Your task to perform on an android device: Check the weather Image 0: 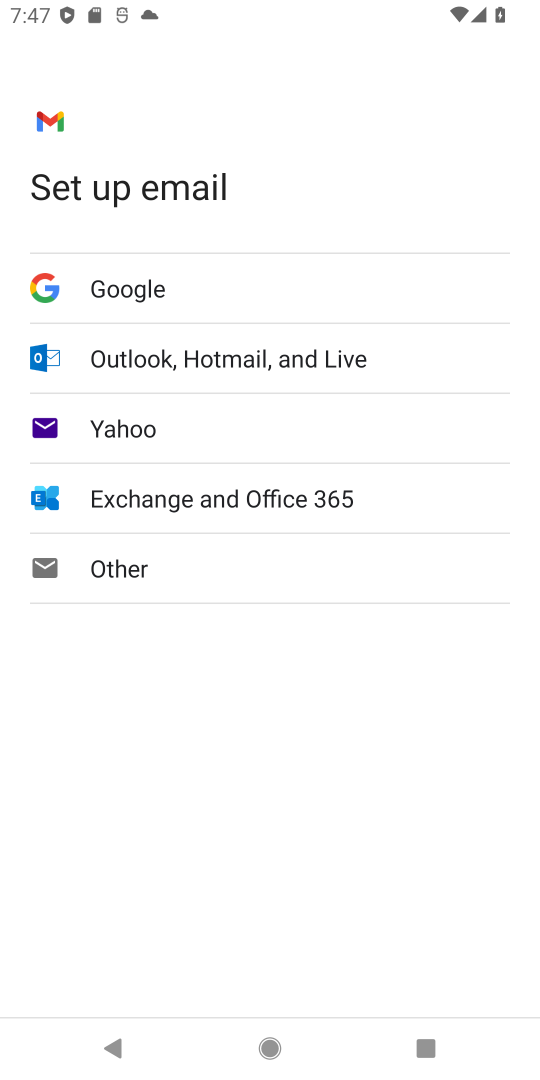
Step 0: press home button
Your task to perform on an android device: Check the weather Image 1: 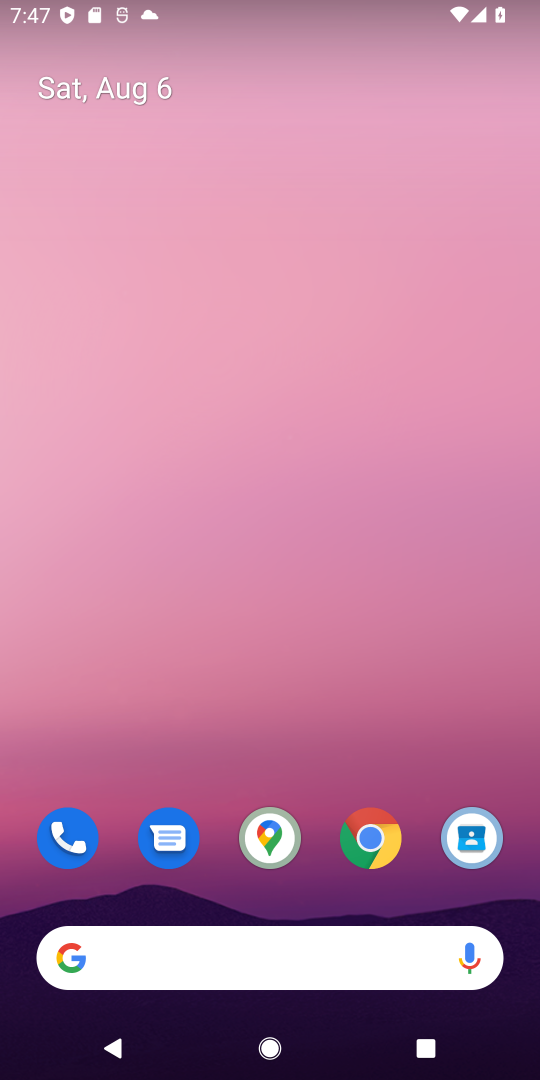
Step 1: click (284, 949)
Your task to perform on an android device: Check the weather Image 2: 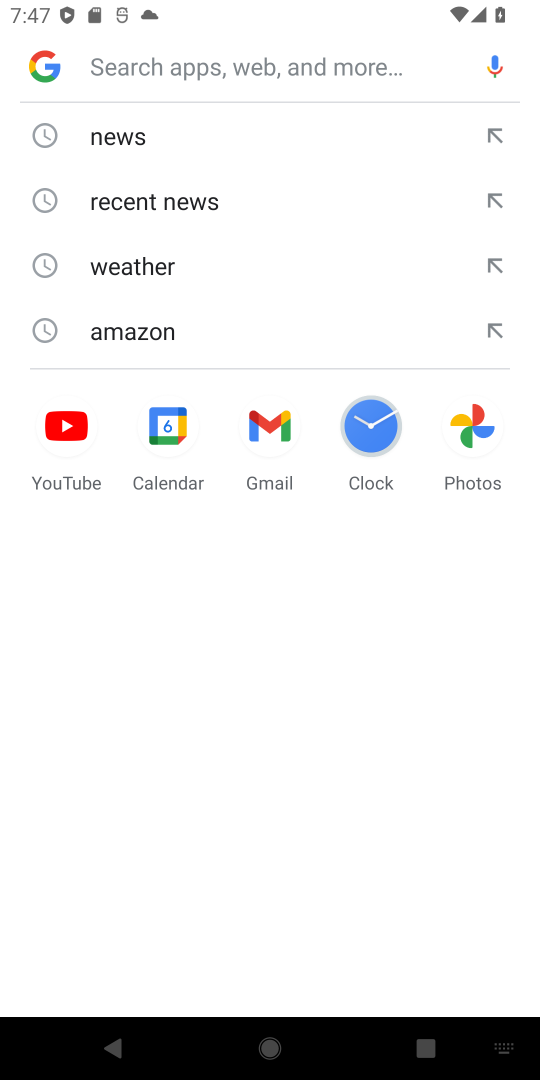
Step 2: click (156, 265)
Your task to perform on an android device: Check the weather Image 3: 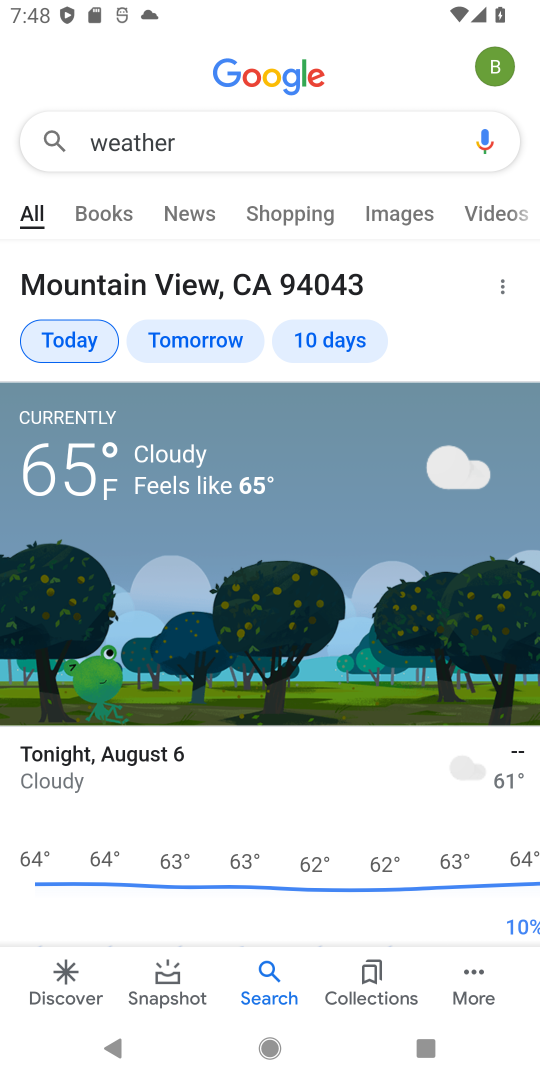
Step 3: task complete